Your task to perform on an android device: Open display settings Image 0: 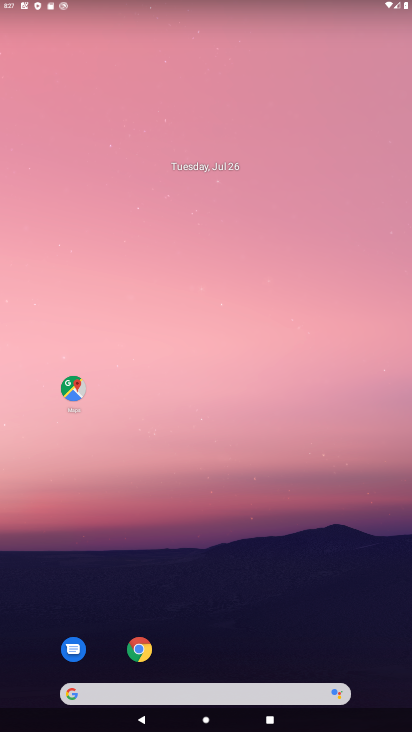
Step 0: drag from (183, 658) to (210, 152)
Your task to perform on an android device: Open display settings Image 1: 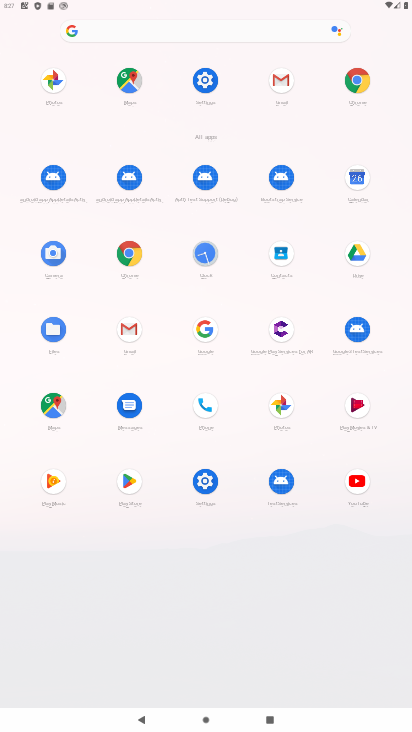
Step 1: click (200, 86)
Your task to perform on an android device: Open display settings Image 2: 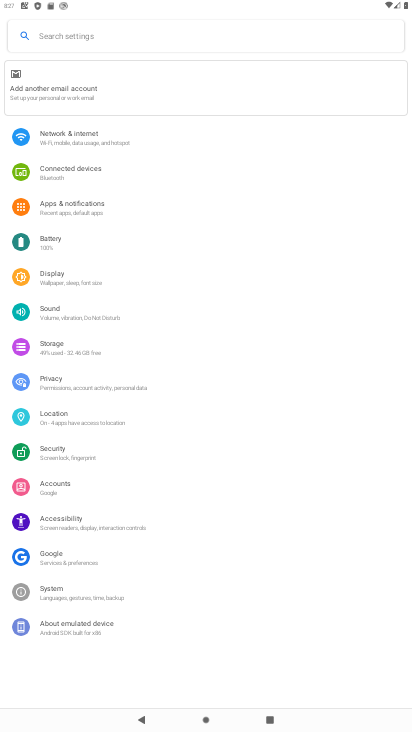
Step 2: click (57, 277)
Your task to perform on an android device: Open display settings Image 3: 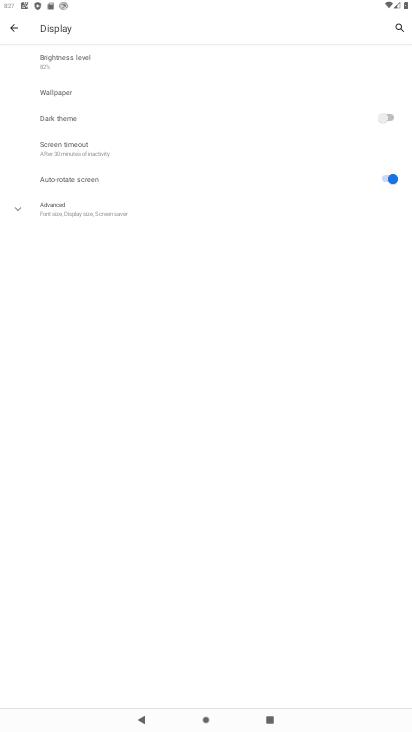
Step 3: task complete